Your task to perform on an android device: delete a single message in the gmail app Image 0: 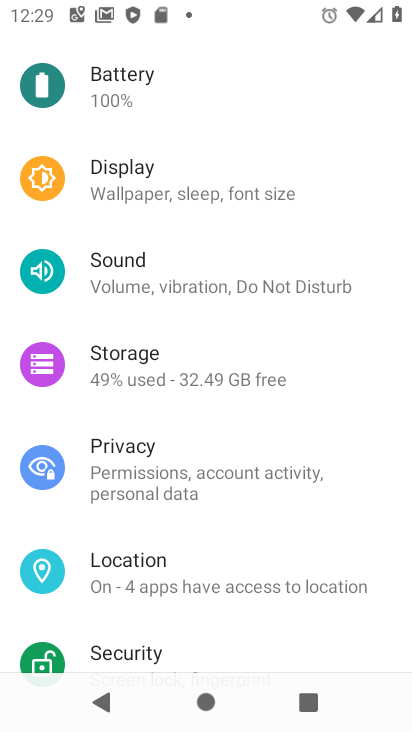
Step 0: press home button
Your task to perform on an android device: delete a single message in the gmail app Image 1: 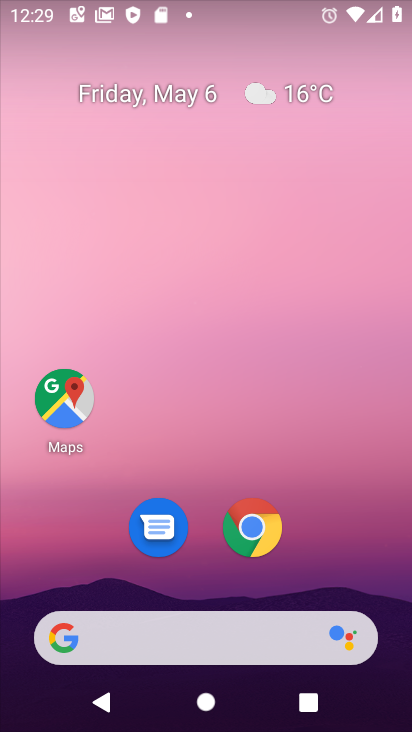
Step 1: drag from (343, 509) to (107, 168)
Your task to perform on an android device: delete a single message in the gmail app Image 2: 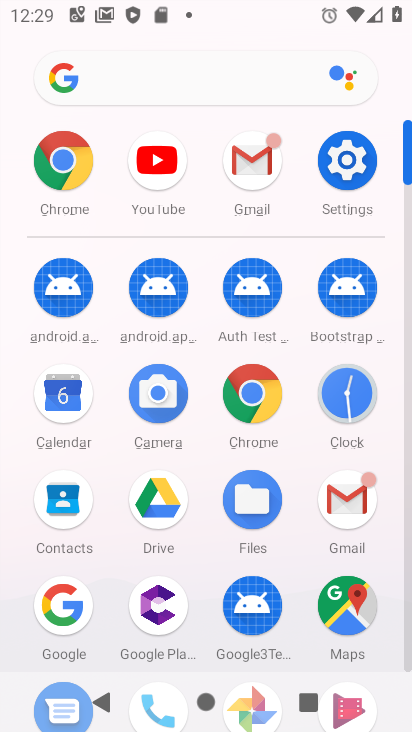
Step 2: click (367, 498)
Your task to perform on an android device: delete a single message in the gmail app Image 3: 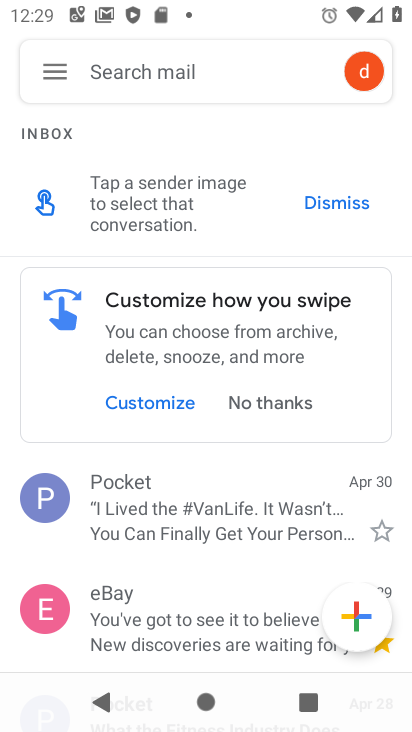
Step 3: click (190, 534)
Your task to perform on an android device: delete a single message in the gmail app Image 4: 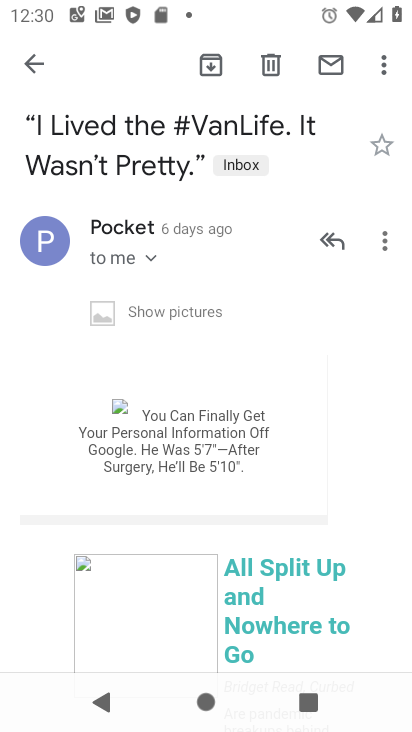
Step 4: click (270, 67)
Your task to perform on an android device: delete a single message in the gmail app Image 5: 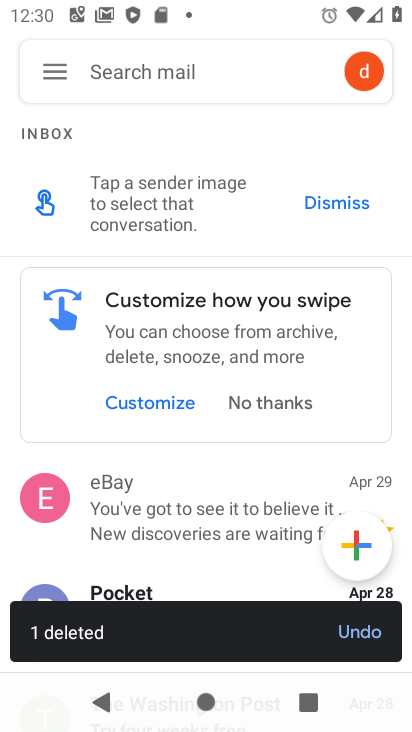
Step 5: task complete